Your task to perform on an android device: all mails in gmail Image 0: 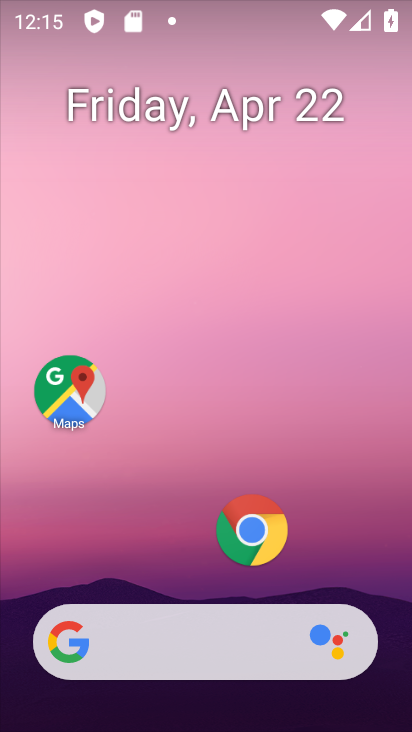
Step 0: click (251, 530)
Your task to perform on an android device: all mails in gmail Image 1: 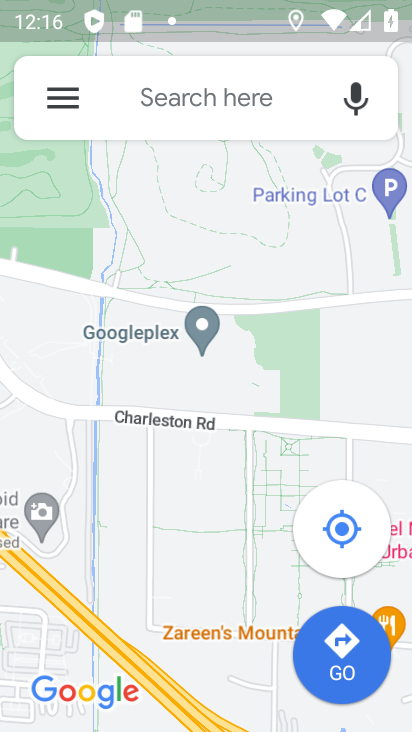
Step 1: press home button
Your task to perform on an android device: all mails in gmail Image 2: 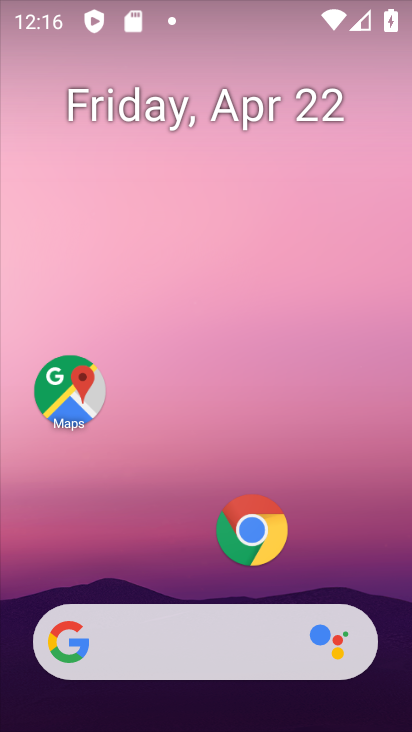
Step 2: drag from (209, 677) to (218, 194)
Your task to perform on an android device: all mails in gmail Image 3: 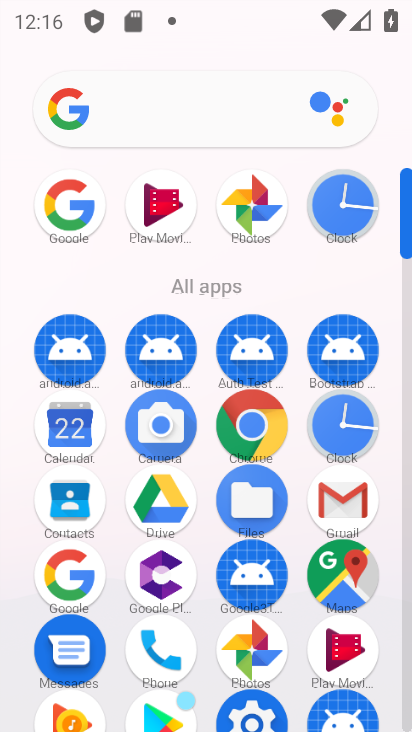
Step 3: click (334, 495)
Your task to perform on an android device: all mails in gmail Image 4: 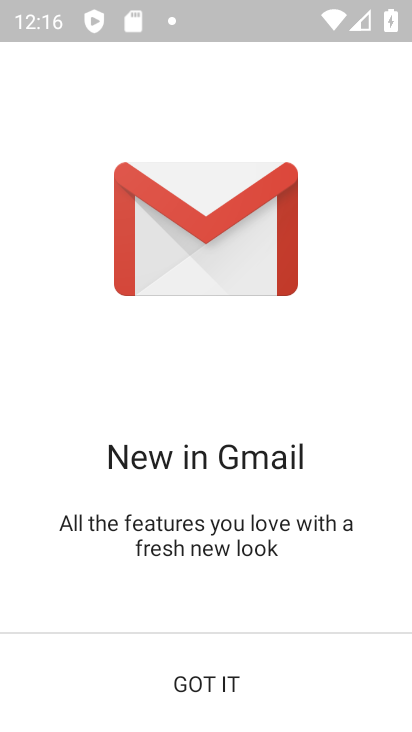
Step 4: click (212, 679)
Your task to perform on an android device: all mails in gmail Image 5: 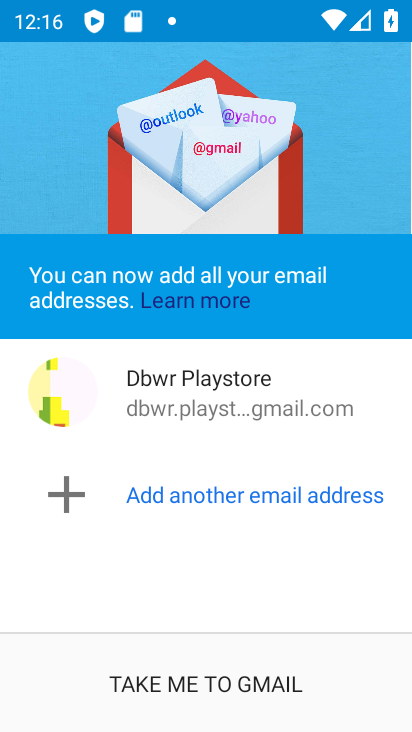
Step 5: click (230, 675)
Your task to perform on an android device: all mails in gmail Image 6: 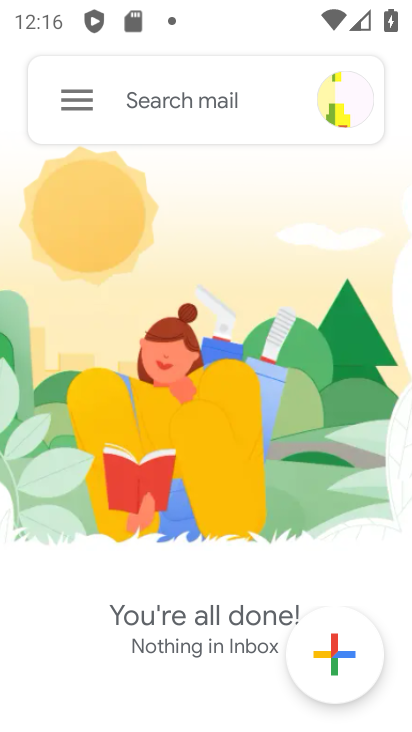
Step 6: click (72, 95)
Your task to perform on an android device: all mails in gmail Image 7: 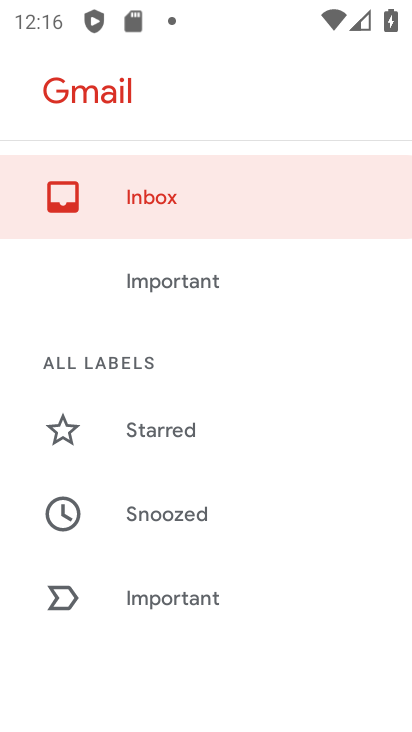
Step 7: drag from (179, 581) to (186, 295)
Your task to perform on an android device: all mails in gmail Image 8: 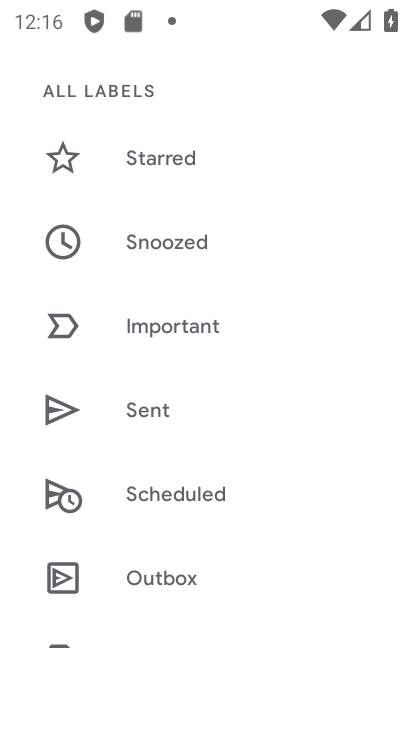
Step 8: drag from (206, 603) to (207, 338)
Your task to perform on an android device: all mails in gmail Image 9: 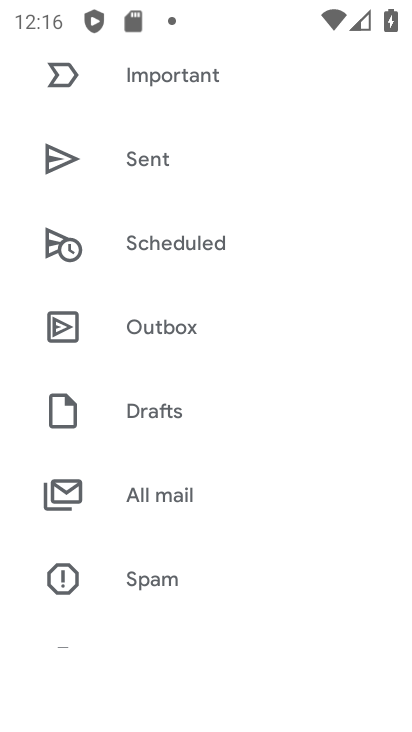
Step 9: click (167, 493)
Your task to perform on an android device: all mails in gmail Image 10: 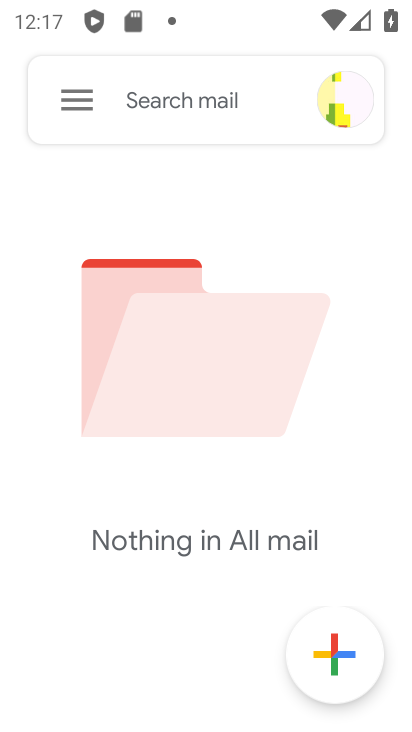
Step 10: task complete